Your task to perform on an android device: Go to accessibility settings Image 0: 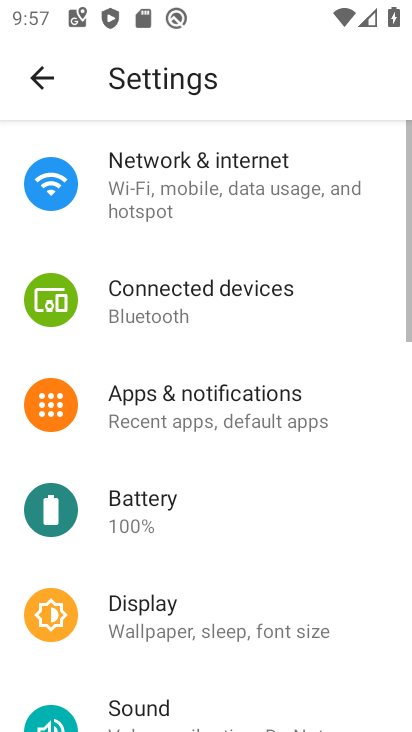
Step 0: press home button
Your task to perform on an android device: Go to accessibility settings Image 1: 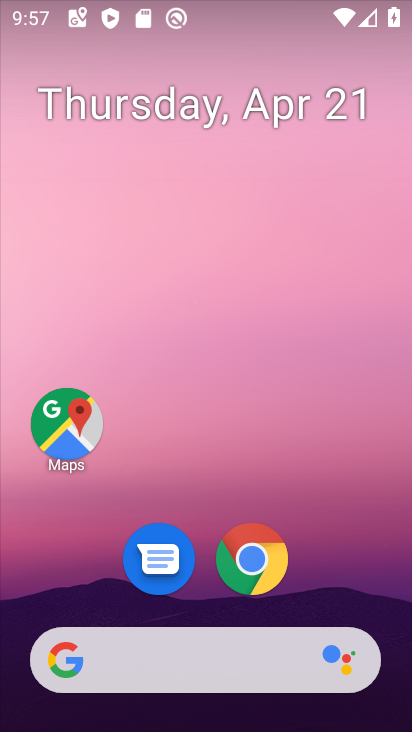
Step 1: drag from (291, 695) to (225, 283)
Your task to perform on an android device: Go to accessibility settings Image 2: 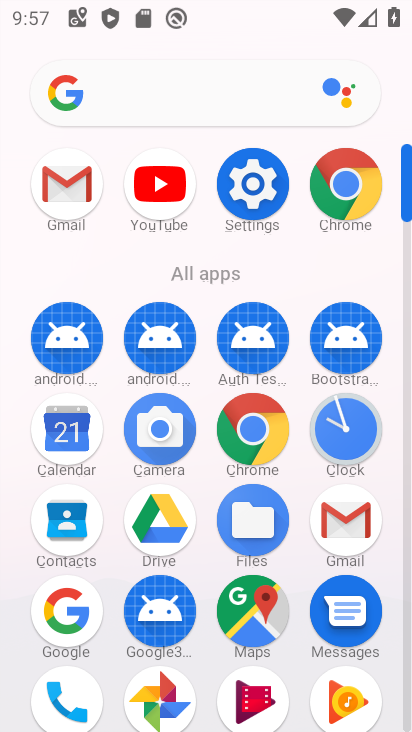
Step 2: click (243, 167)
Your task to perform on an android device: Go to accessibility settings Image 3: 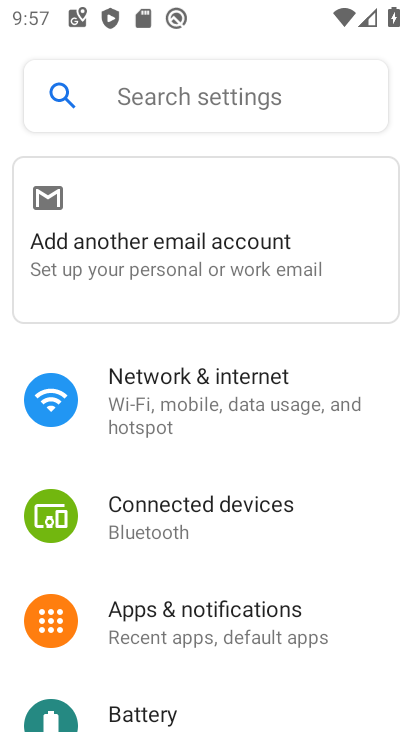
Step 3: click (170, 94)
Your task to perform on an android device: Go to accessibility settings Image 4: 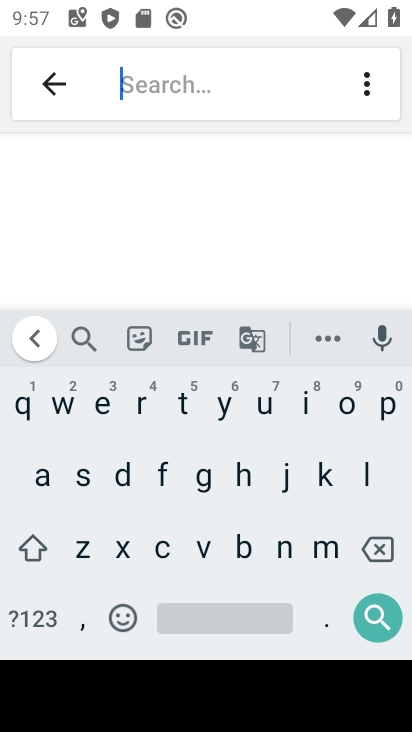
Step 4: click (39, 478)
Your task to perform on an android device: Go to accessibility settings Image 5: 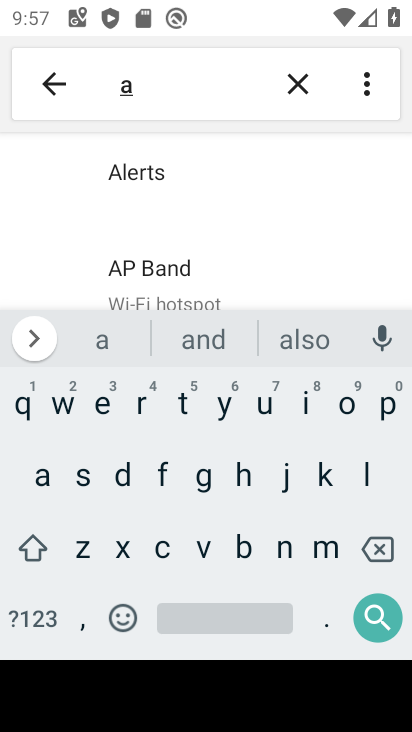
Step 5: click (158, 547)
Your task to perform on an android device: Go to accessibility settings Image 6: 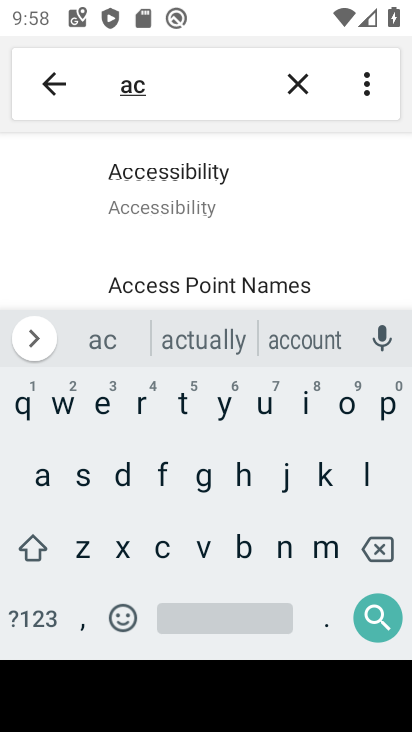
Step 6: click (191, 188)
Your task to perform on an android device: Go to accessibility settings Image 7: 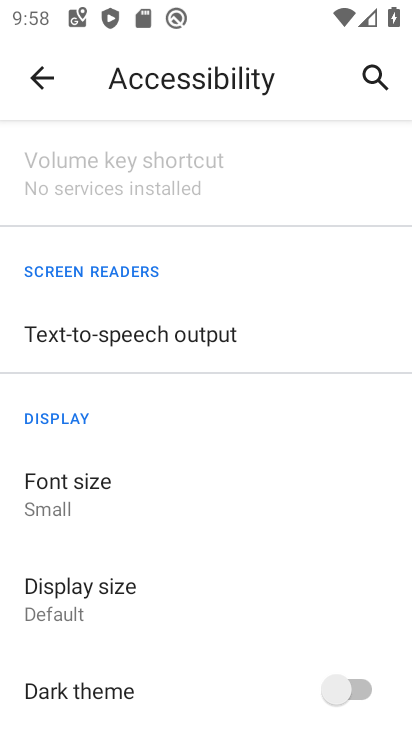
Step 7: task complete